Your task to perform on an android device: find snoozed emails in the gmail app Image 0: 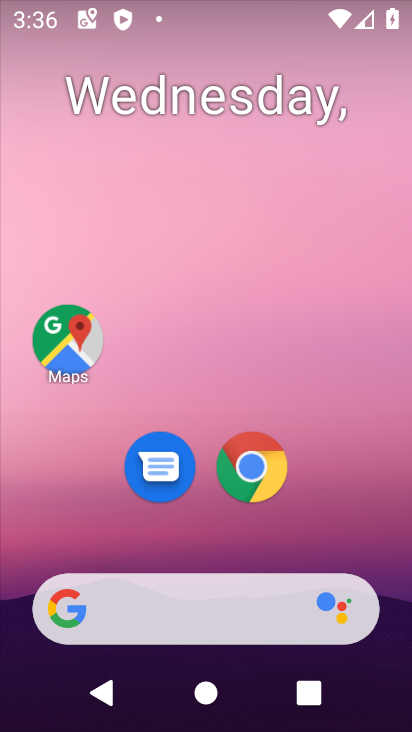
Step 0: drag from (392, 579) to (344, 123)
Your task to perform on an android device: find snoozed emails in the gmail app Image 1: 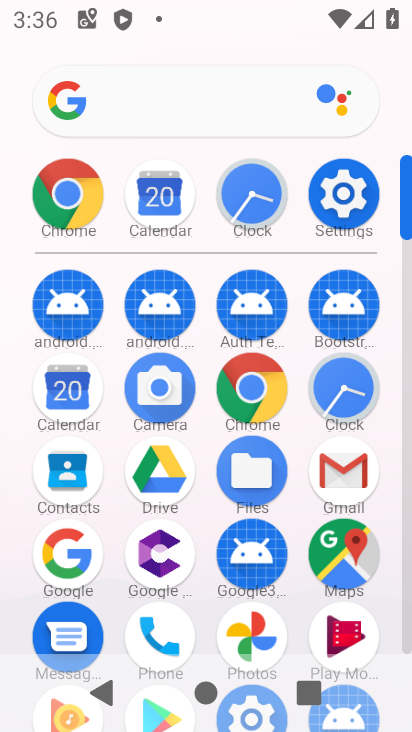
Step 1: click (404, 634)
Your task to perform on an android device: find snoozed emails in the gmail app Image 2: 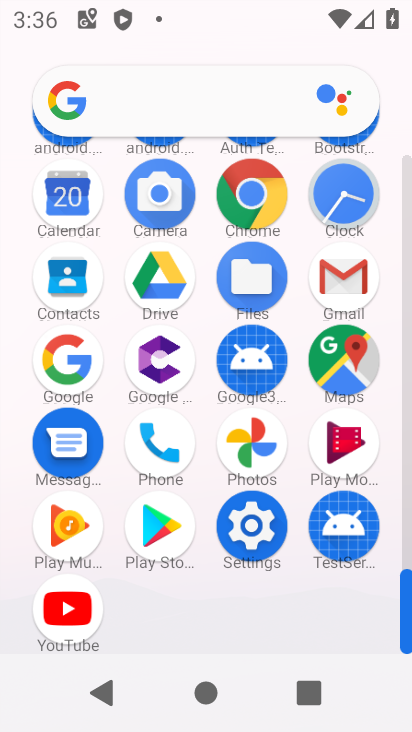
Step 2: click (340, 273)
Your task to perform on an android device: find snoozed emails in the gmail app Image 3: 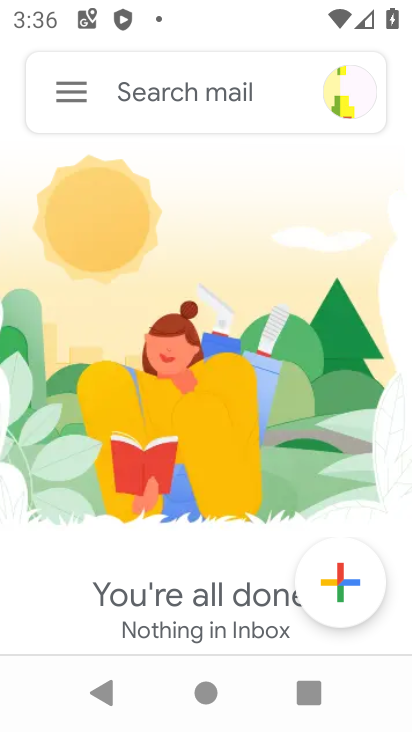
Step 3: click (66, 89)
Your task to perform on an android device: find snoozed emails in the gmail app Image 4: 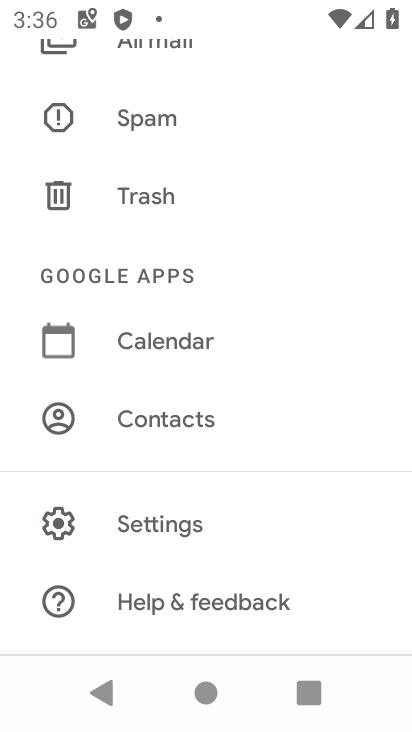
Step 4: drag from (228, 199) to (233, 415)
Your task to perform on an android device: find snoozed emails in the gmail app Image 5: 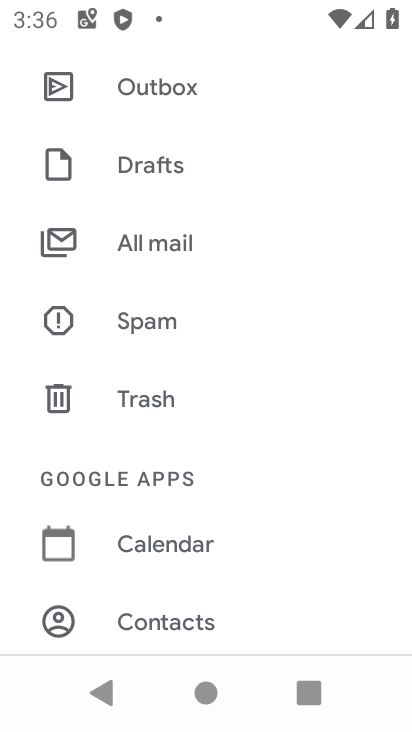
Step 5: drag from (257, 252) to (237, 514)
Your task to perform on an android device: find snoozed emails in the gmail app Image 6: 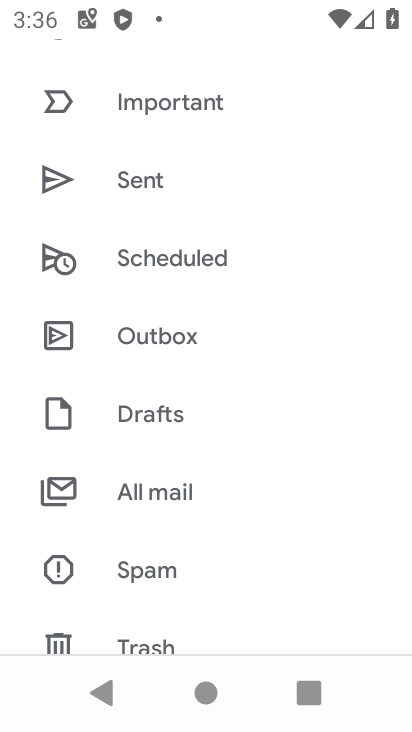
Step 6: drag from (287, 208) to (264, 464)
Your task to perform on an android device: find snoozed emails in the gmail app Image 7: 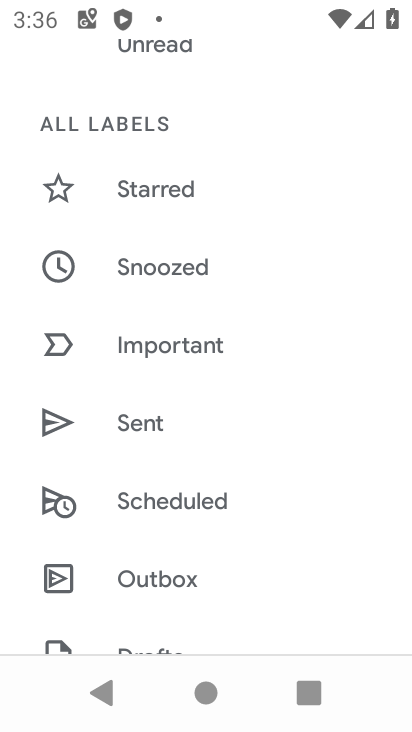
Step 7: click (140, 266)
Your task to perform on an android device: find snoozed emails in the gmail app Image 8: 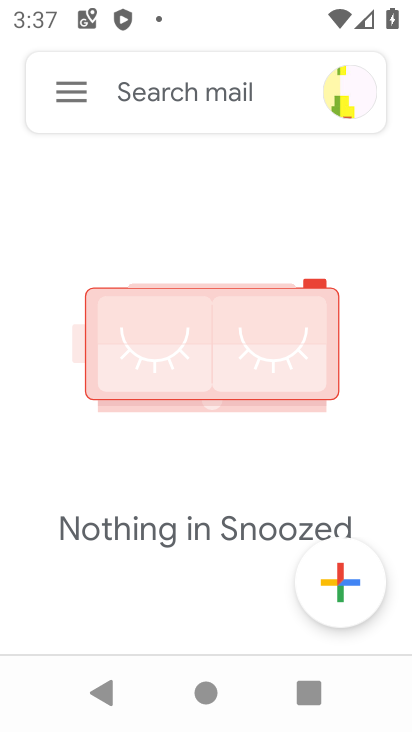
Step 8: task complete